Your task to perform on an android device: Search for seafood restaurants on Google Maps Image 0: 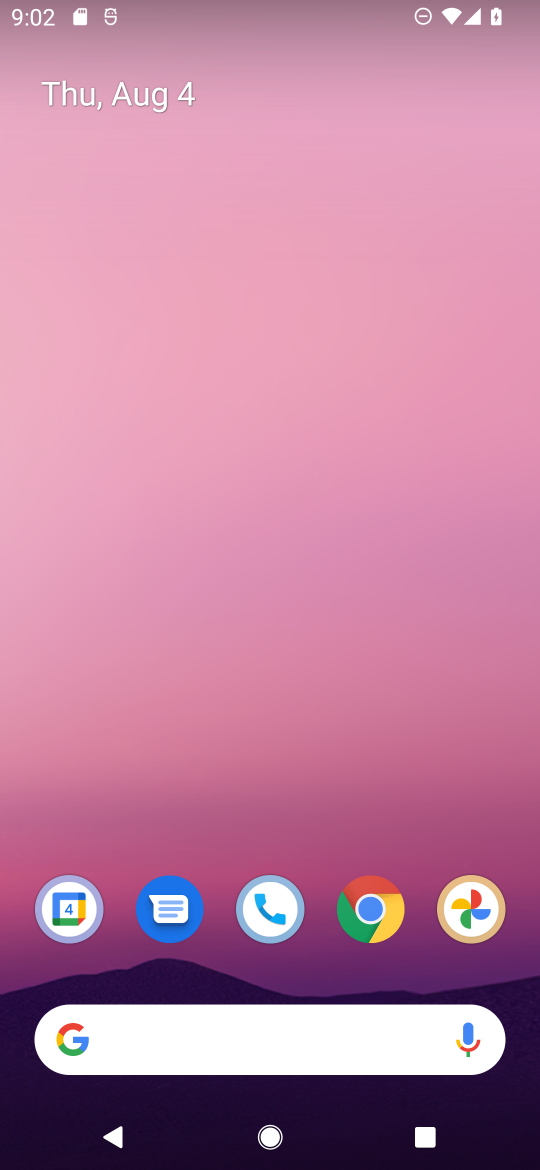
Step 0: press home button
Your task to perform on an android device: Search for seafood restaurants on Google Maps Image 1: 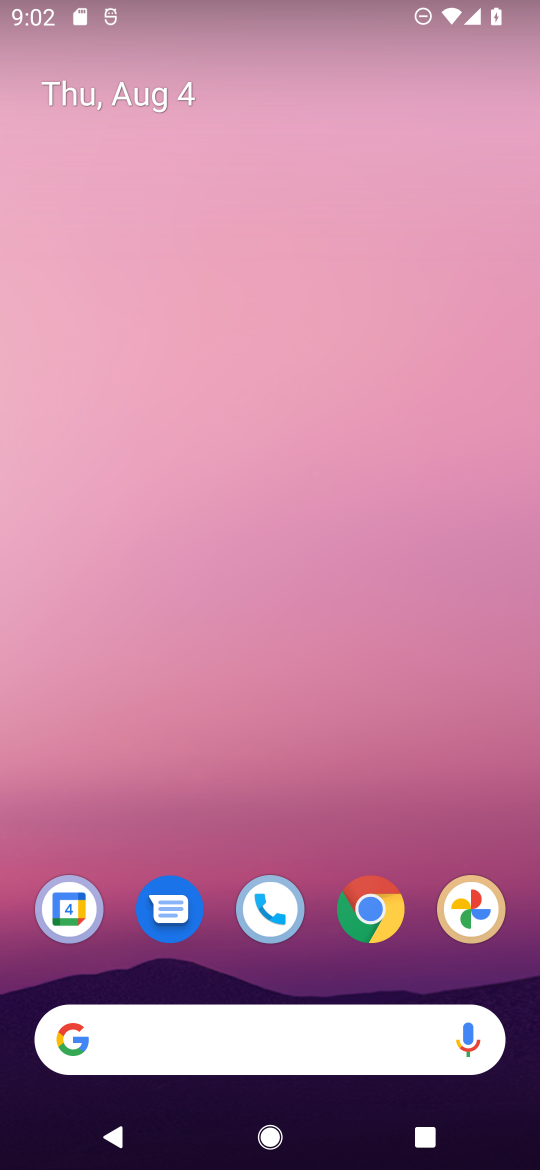
Step 1: drag from (415, 797) to (445, 135)
Your task to perform on an android device: Search for seafood restaurants on Google Maps Image 2: 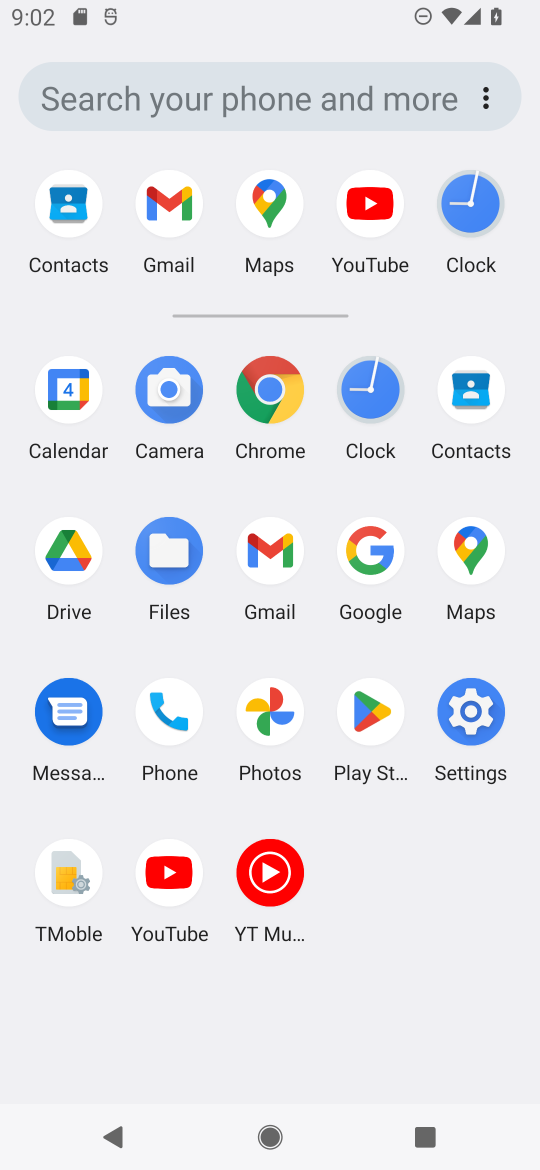
Step 2: click (468, 549)
Your task to perform on an android device: Search for seafood restaurants on Google Maps Image 3: 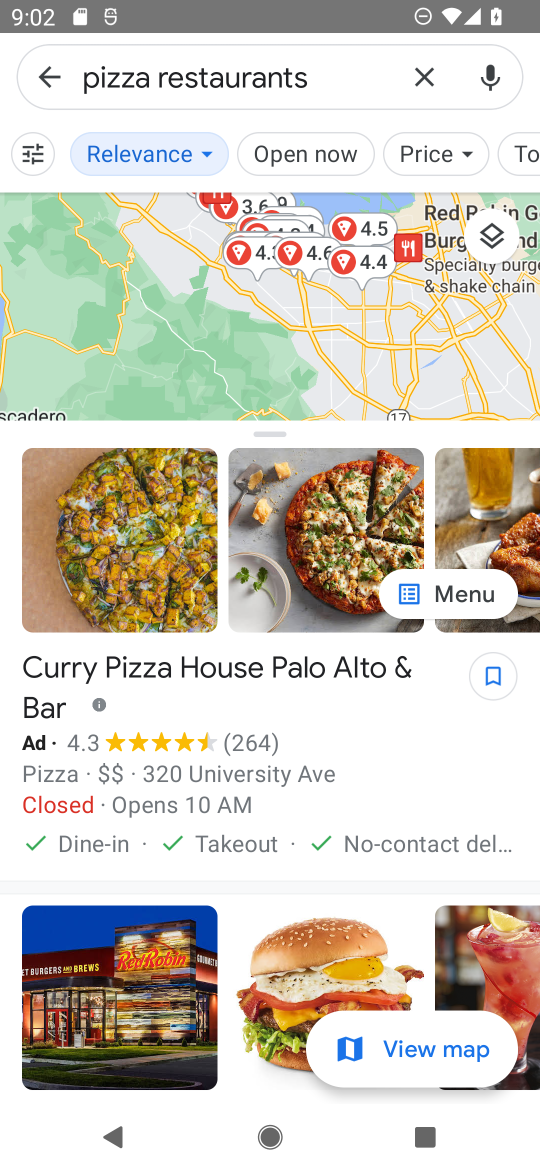
Step 3: click (425, 79)
Your task to perform on an android device: Search for seafood restaurants on Google Maps Image 4: 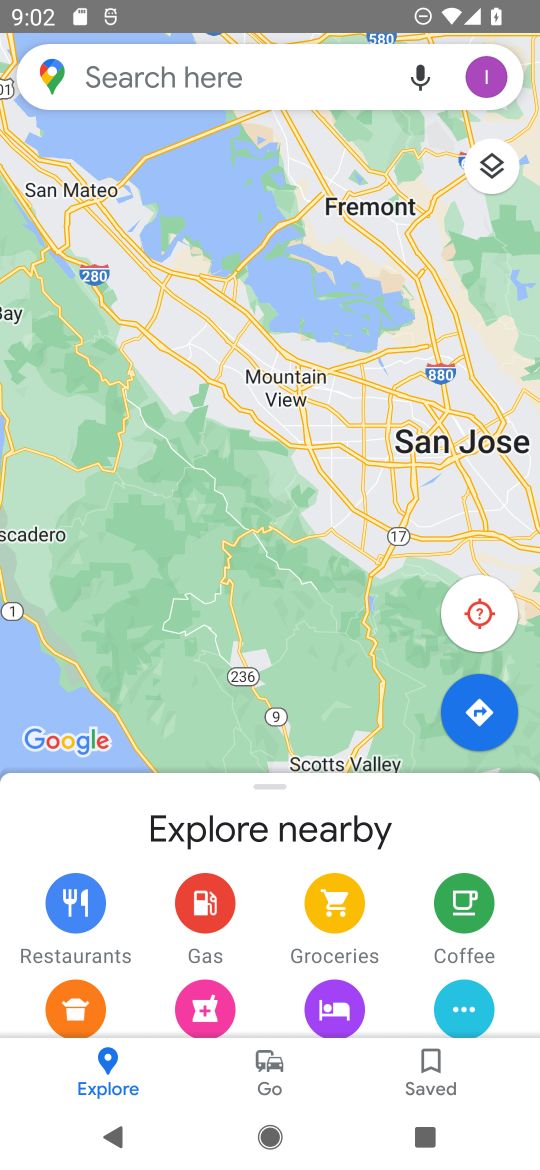
Step 4: click (239, 73)
Your task to perform on an android device: Search for seafood restaurants on Google Maps Image 5: 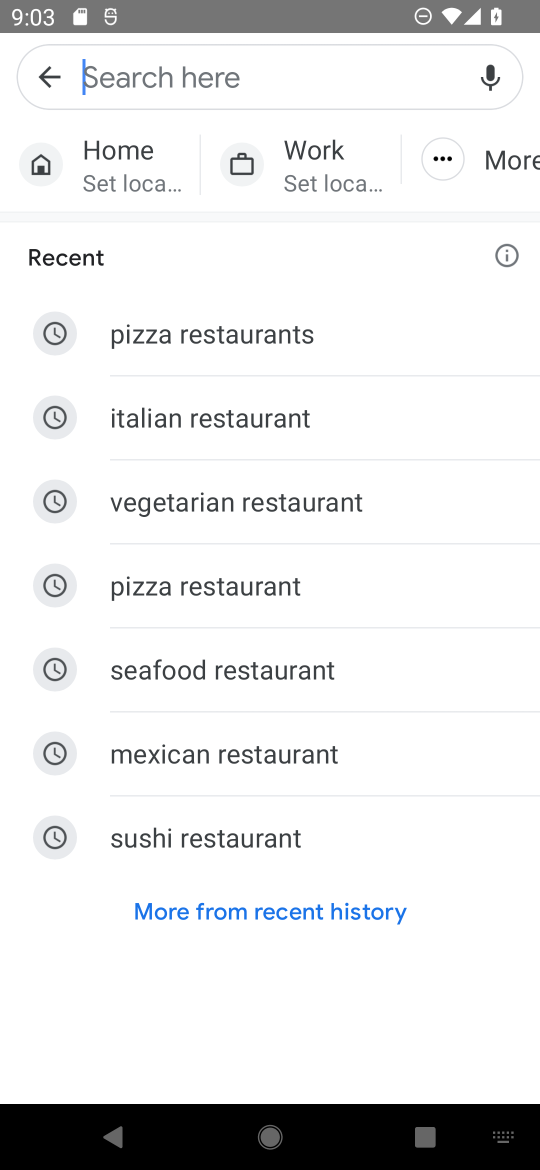
Step 5: type "seafood restaurants "
Your task to perform on an android device: Search for seafood restaurants on Google Maps Image 6: 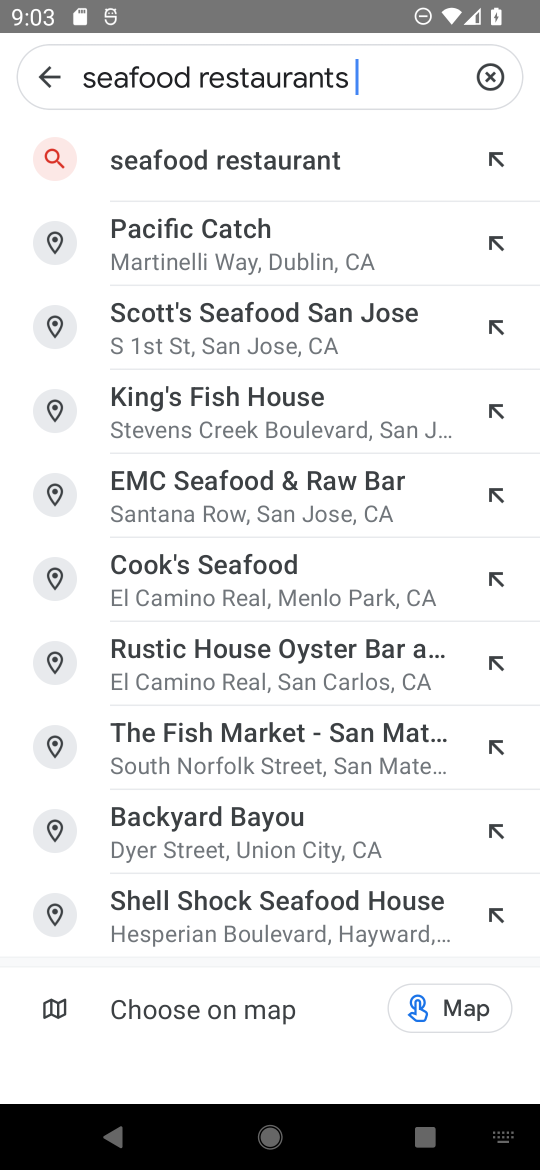
Step 6: click (354, 153)
Your task to perform on an android device: Search for seafood restaurants on Google Maps Image 7: 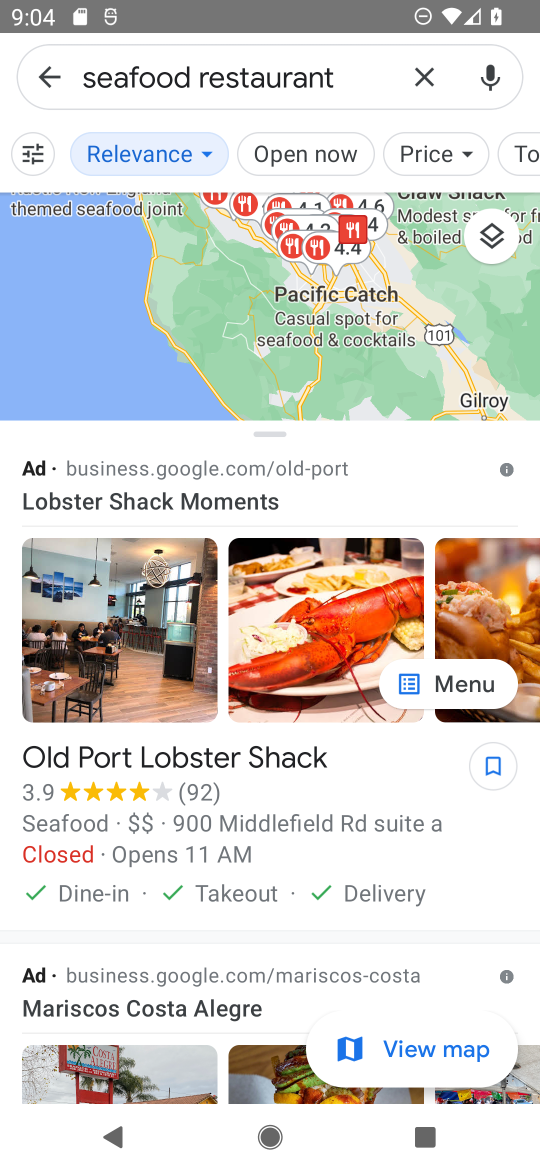
Step 7: task complete